Your task to perform on an android device: open app "Speedtest by Ookla" Image 0: 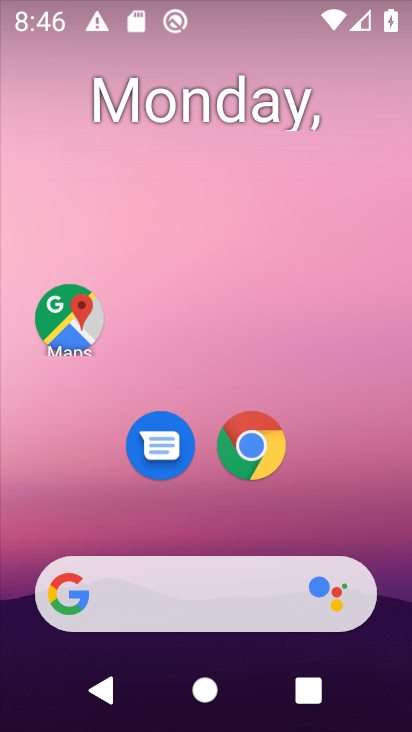
Step 0: drag from (381, 592) to (179, 51)
Your task to perform on an android device: open app "Speedtest by Ookla" Image 1: 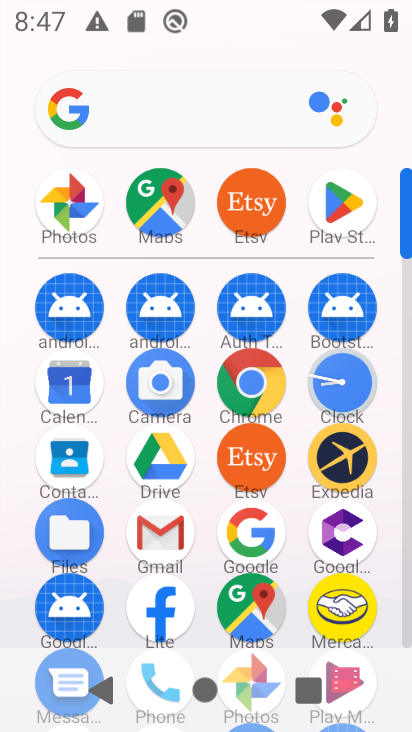
Step 1: click (339, 213)
Your task to perform on an android device: open app "Speedtest by Ookla" Image 2: 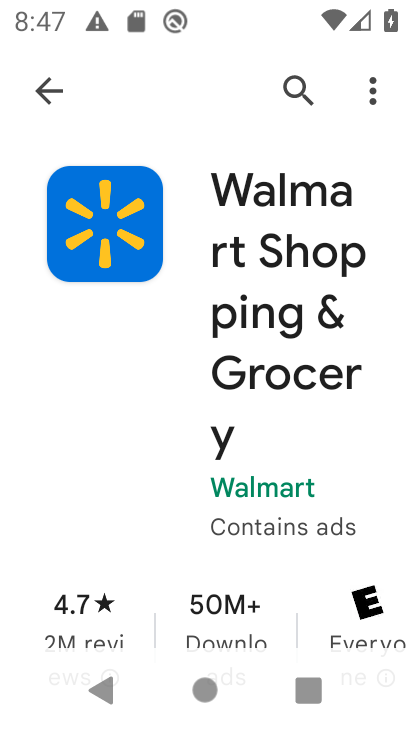
Step 2: press back button
Your task to perform on an android device: open app "Speedtest by Ookla" Image 3: 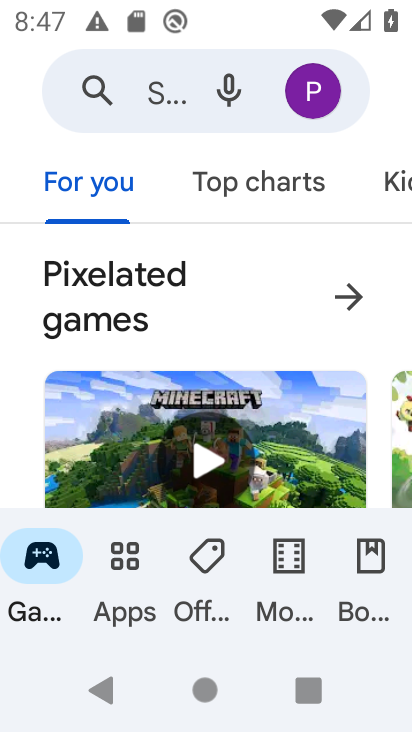
Step 3: click (164, 100)
Your task to perform on an android device: open app "Speedtest by Ookla" Image 4: 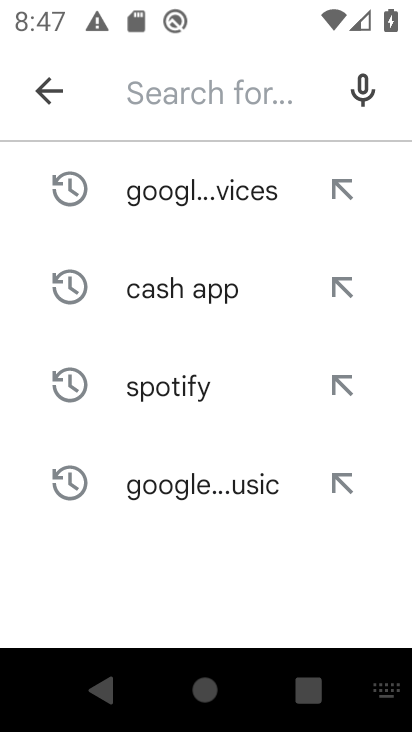
Step 4: type "Speedtest by Ookla"
Your task to perform on an android device: open app "Speedtest by Ookla" Image 5: 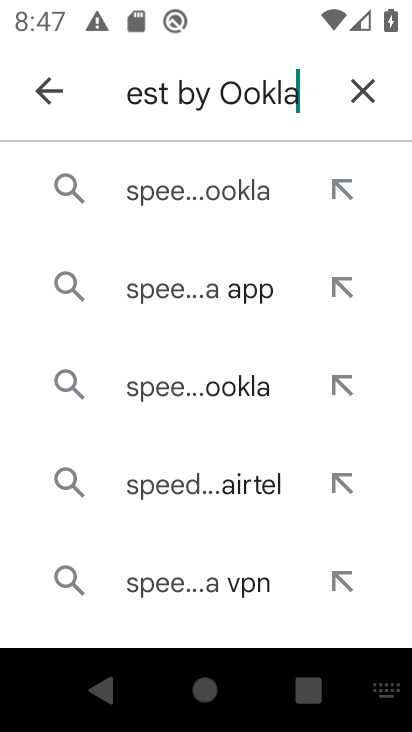
Step 5: click (165, 197)
Your task to perform on an android device: open app "Speedtest by Ookla" Image 6: 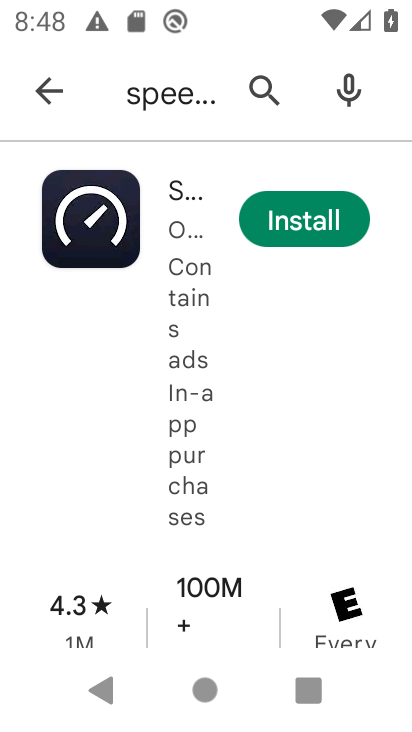
Step 6: task complete